Your task to perform on an android device: Go to CNN.com Image 0: 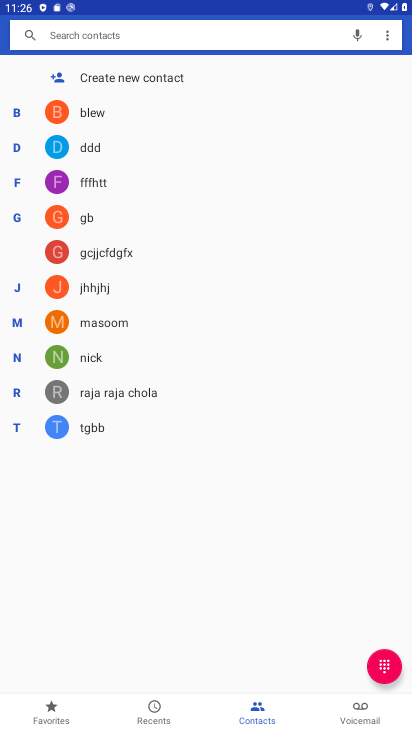
Step 0: press home button
Your task to perform on an android device: Go to CNN.com Image 1: 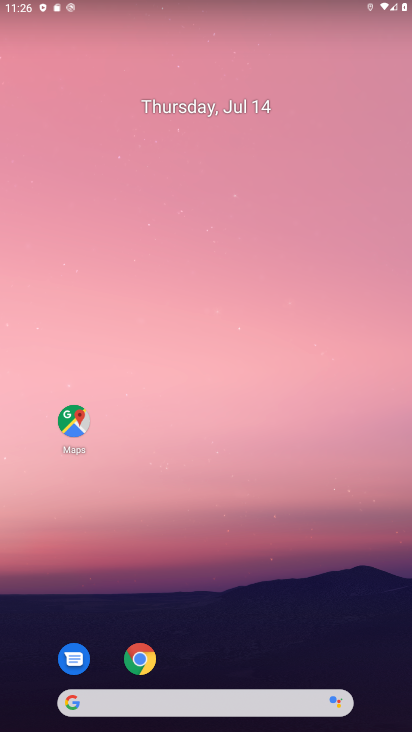
Step 1: drag from (196, 661) to (210, 147)
Your task to perform on an android device: Go to CNN.com Image 2: 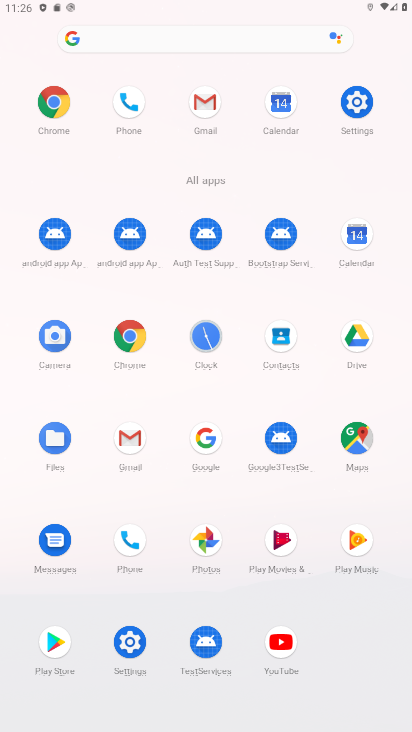
Step 2: click (44, 97)
Your task to perform on an android device: Go to CNN.com Image 3: 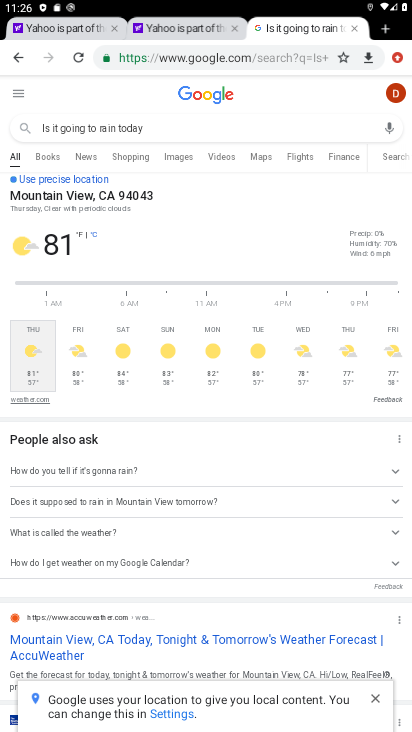
Step 3: click (356, 29)
Your task to perform on an android device: Go to CNN.com Image 4: 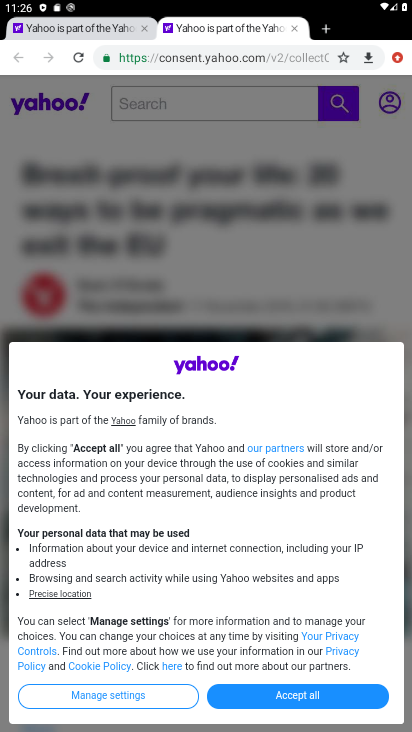
Step 4: click (326, 27)
Your task to perform on an android device: Go to CNN.com Image 5: 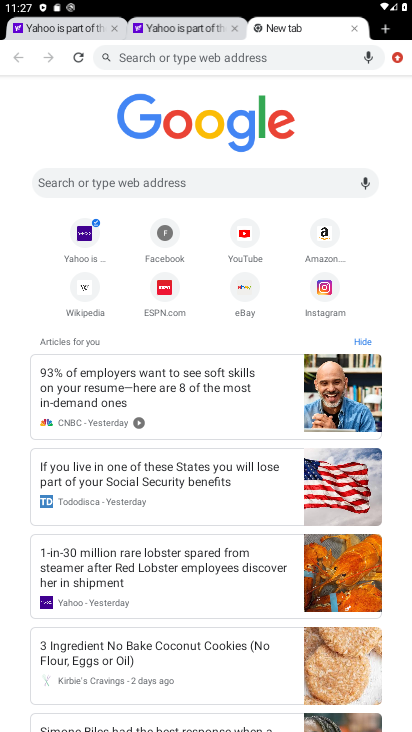
Step 5: click (184, 178)
Your task to perform on an android device: Go to CNN.com Image 6: 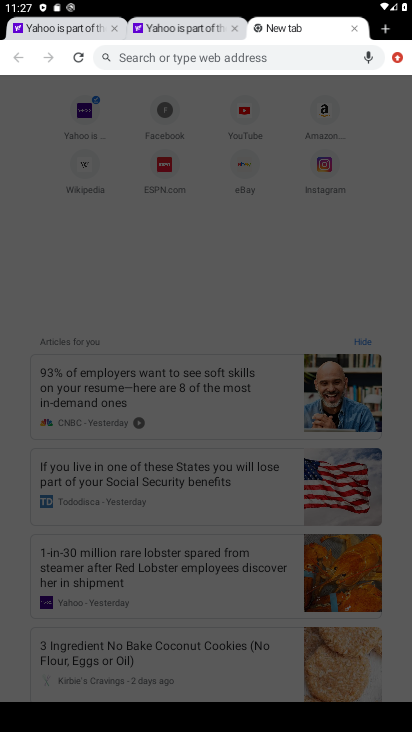
Step 6: type "CNN.com "
Your task to perform on an android device: Go to CNN.com Image 7: 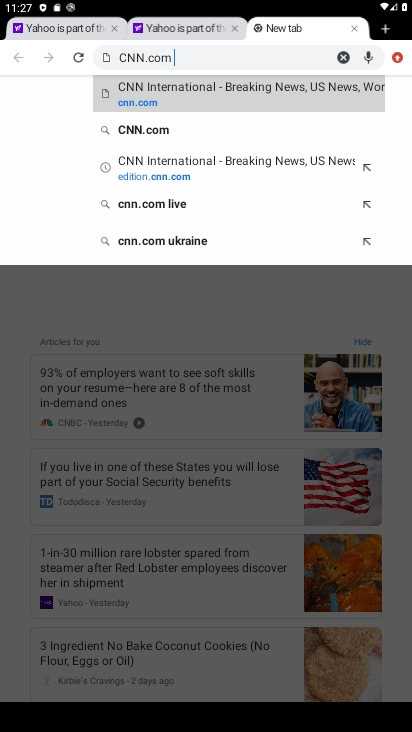
Step 7: click (301, 81)
Your task to perform on an android device: Go to CNN.com Image 8: 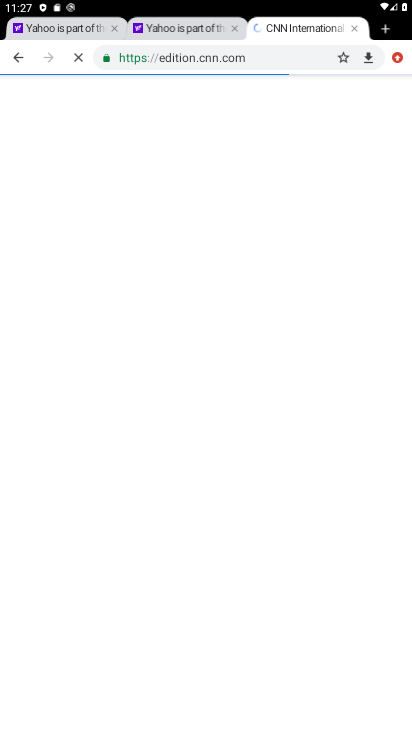
Step 8: task complete